Your task to perform on an android device: Open Amazon Image 0: 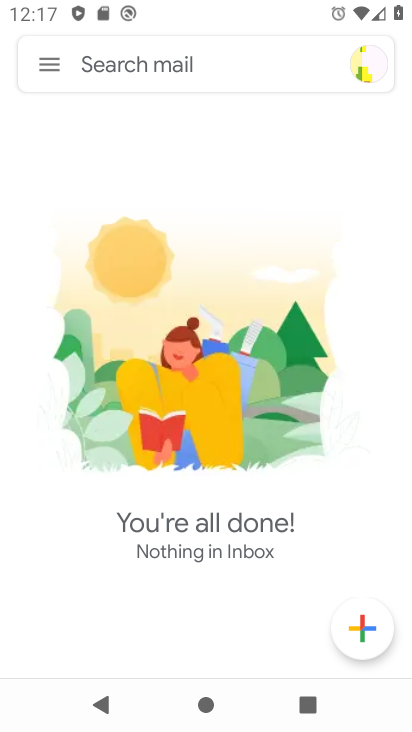
Step 0: press home button
Your task to perform on an android device: Open Amazon Image 1: 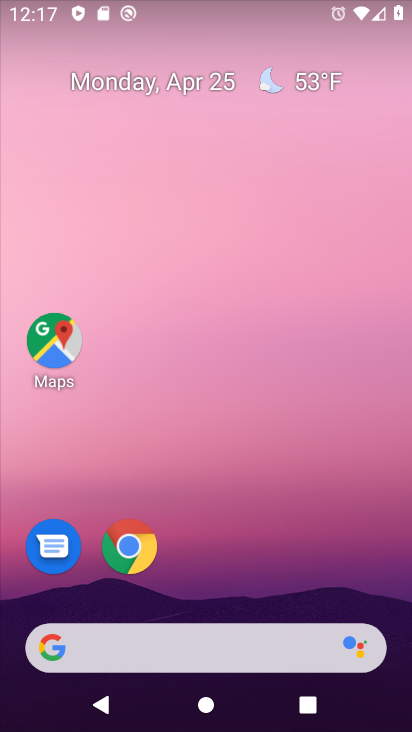
Step 1: click (136, 547)
Your task to perform on an android device: Open Amazon Image 2: 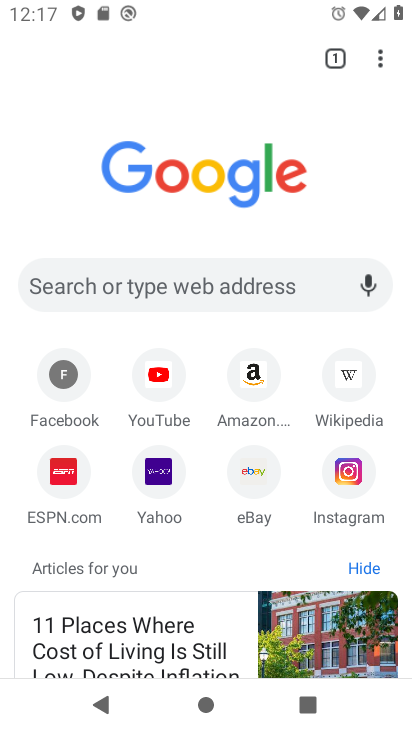
Step 2: click (236, 354)
Your task to perform on an android device: Open Amazon Image 3: 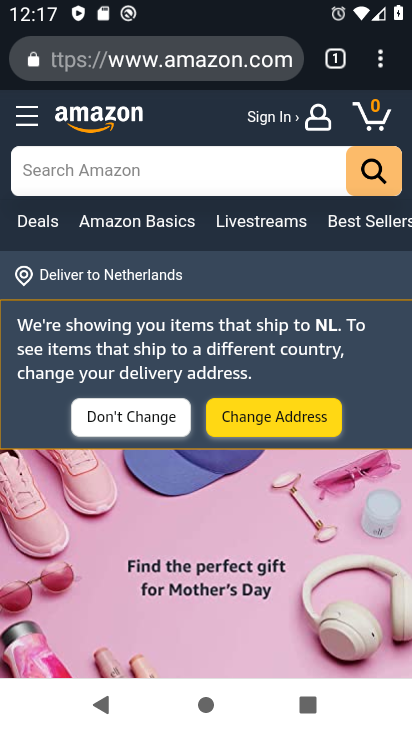
Step 3: task complete